Your task to perform on an android device: Go to Reddit.com Image 0: 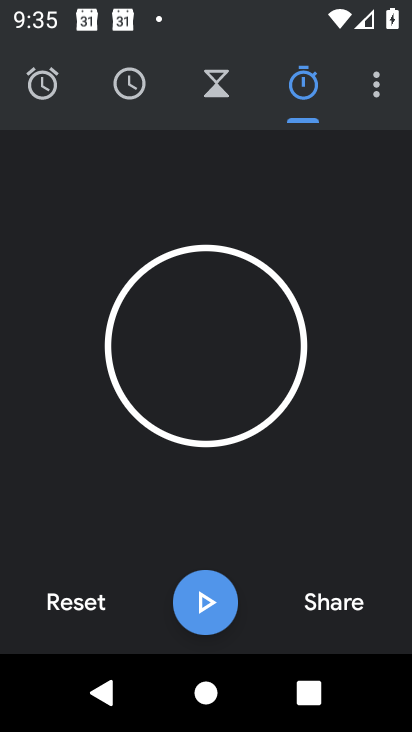
Step 0: press home button
Your task to perform on an android device: Go to Reddit.com Image 1: 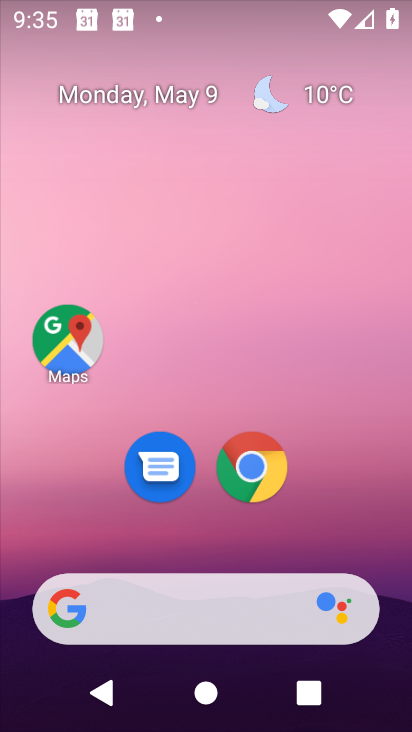
Step 1: click (266, 475)
Your task to perform on an android device: Go to Reddit.com Image 2: 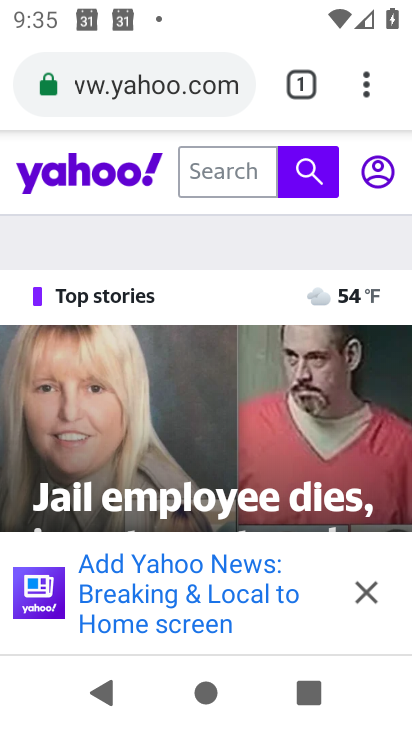
Step 2: click (106, 95)
Your task to perform on an android device: Go to Reddit.com Image 3: 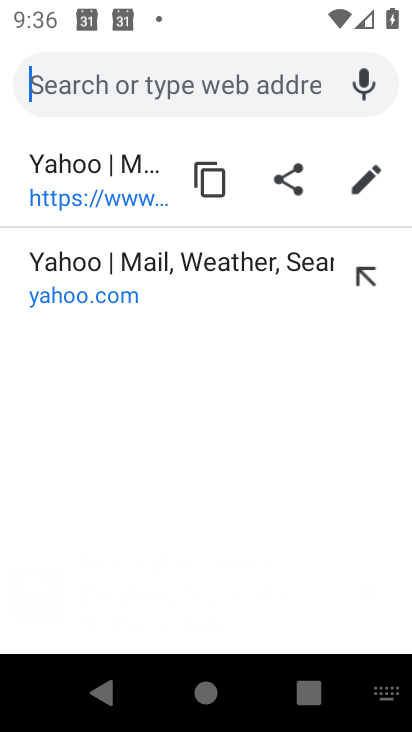
Step 3: type "reddit.com"
Your task to perform on an android device: Go to Reddit.com Image 4: 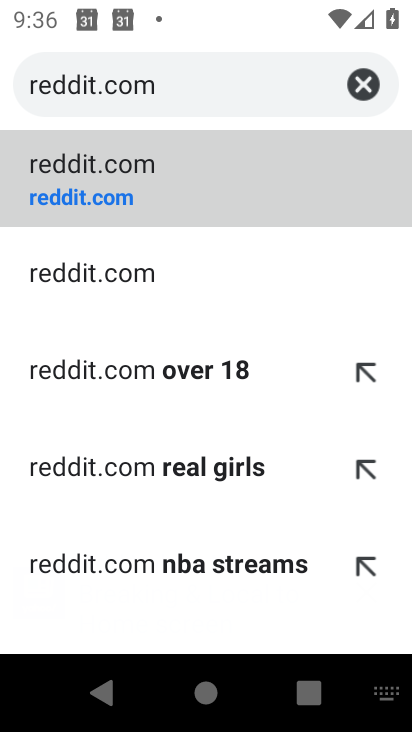
Step 4: click (86, 185)
Your task to perform on an android device: Go to Reddit.com Image 5: 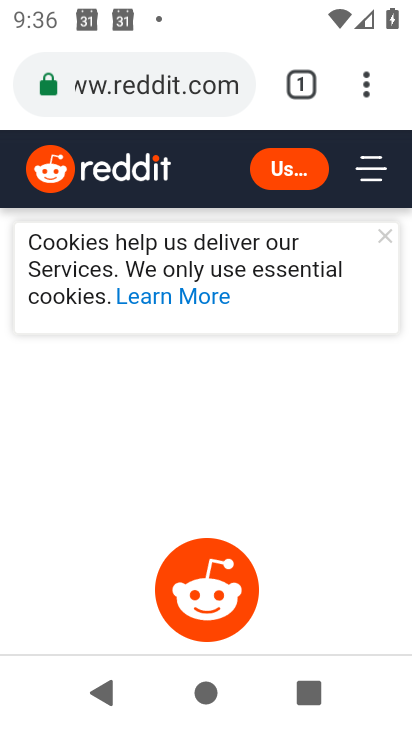
Step 5: task complete